Your task to perform on an android device: Open the stopwatch Image 0: 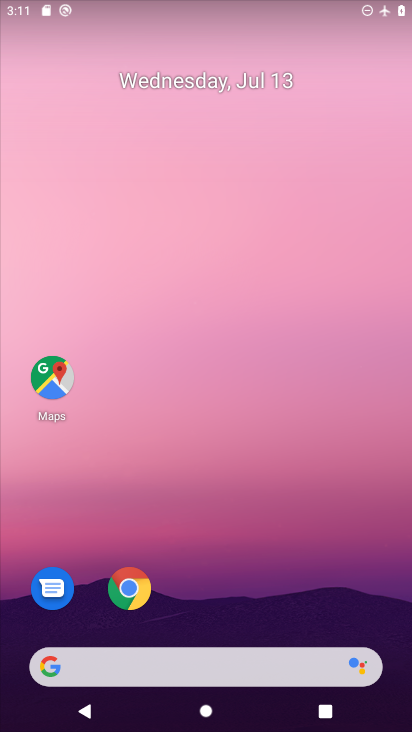
Step 0: drag from (195, 610) to (228, 168)
Your task to perform on an android device: Open the stopwatch Image 1: 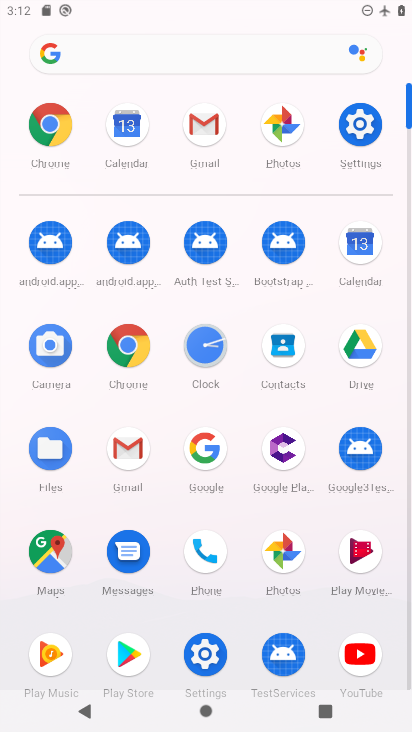
Step 1: click (204, 329)
Your task to perform on an android device: Open the stopwatch Image 2: 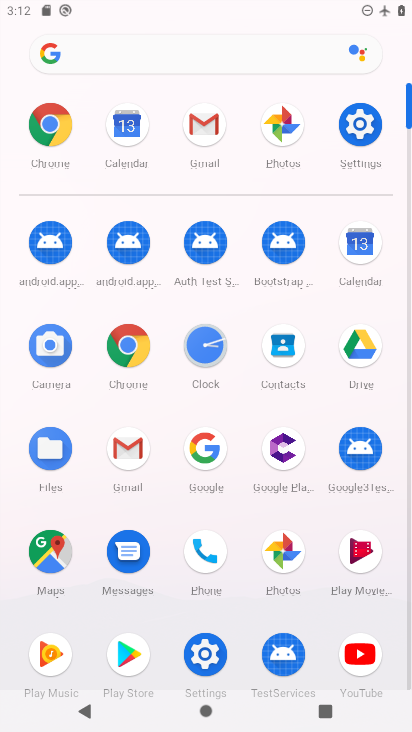
Step 2: click (204, 329)
Your task to perform on an android device: Open the stopwatch Image 3: 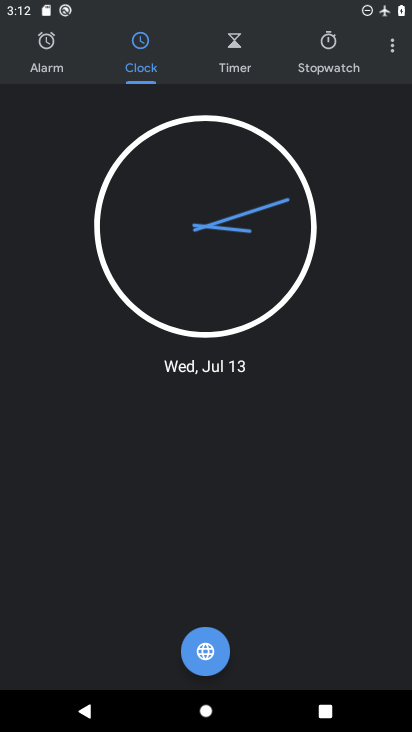
Step 3: click (325, 41)
Your task to perform on an android device: Open the stopwatch Image 4: 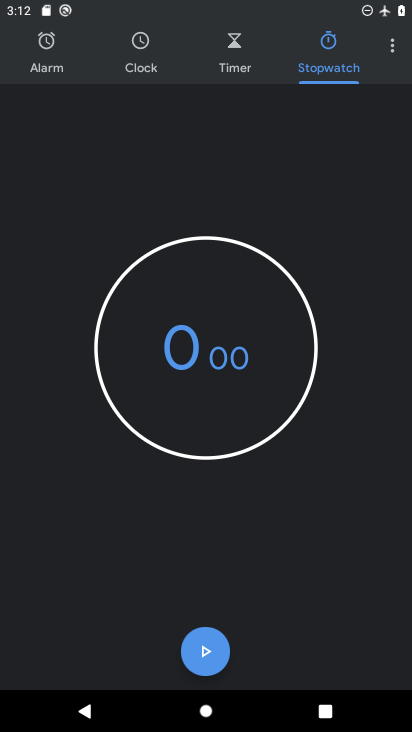
Step 4: task complete